Your task to perform on an android device: turn off data saver in the chrome app Image 0: 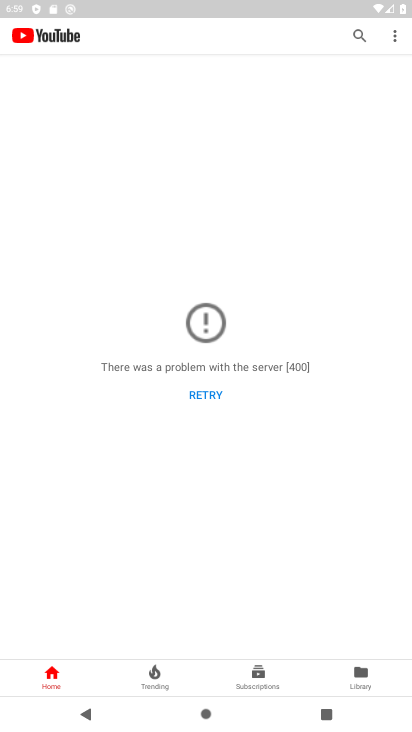
Step 0: click (203, 394)
Your task to perform on an android device: turn off data saver in the chrome app Image 1: 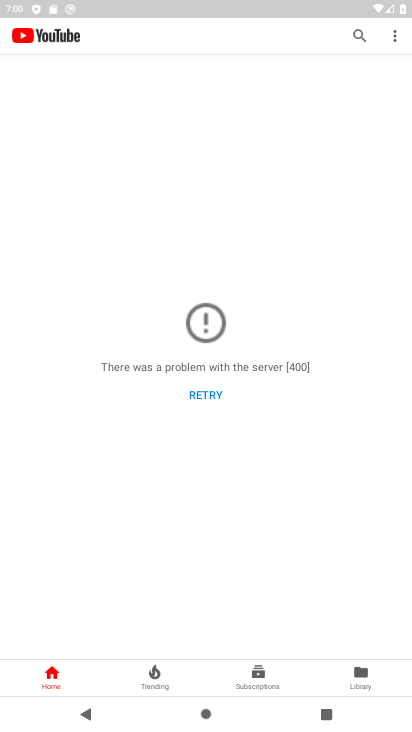
Step 1: press home button
Your task to perform on an android device: turn off data saver in the chrome app Image 2: 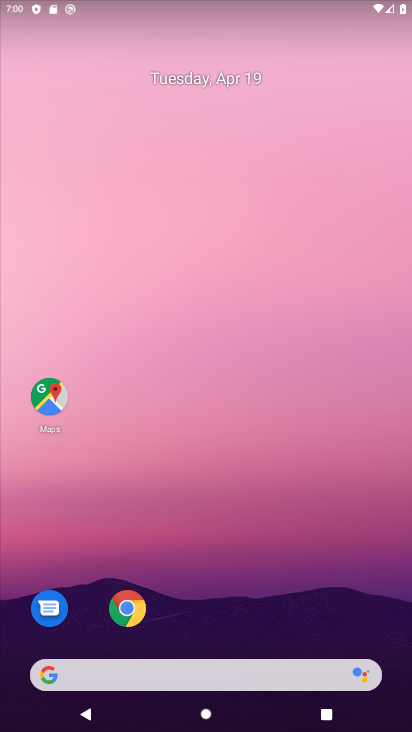
Step 2: click (325, 1)
Your task to perform on an android device: turn off data saver in the chrome app Image 3: 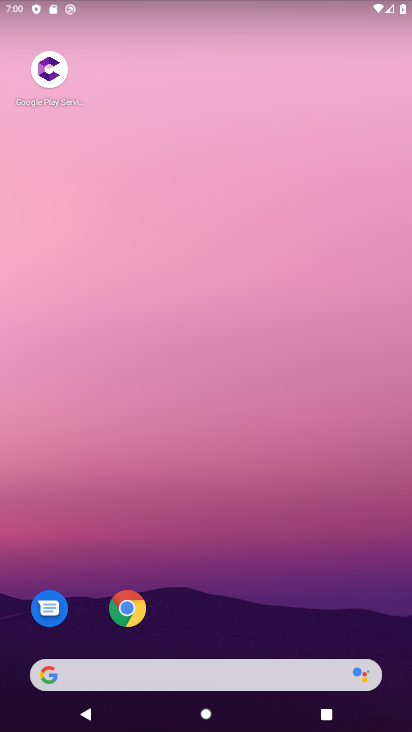
Step 3: click (139, 601)
Your task to perform on an android device: turn off data saver in the chrome app Image 4: 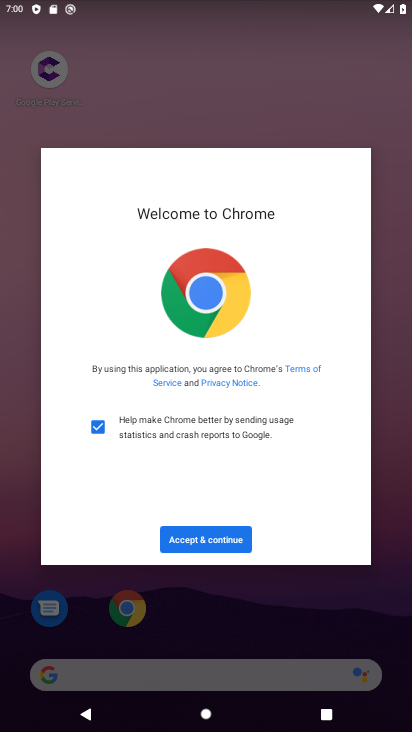
Step 4: click (188, 543)
Your task to perform on an android device: turn off data saver in the chrome app Image 5: 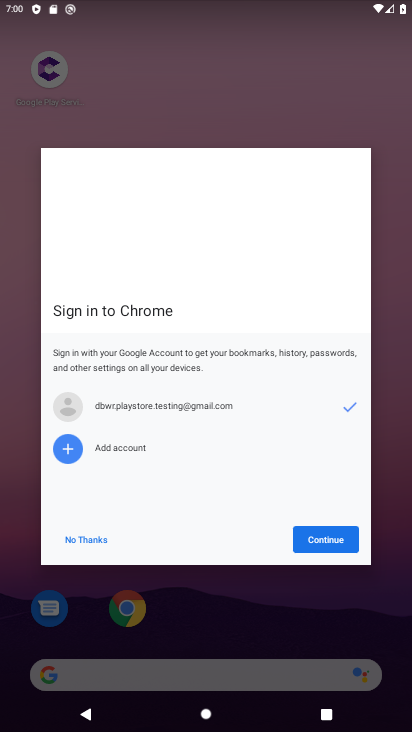
Step 5: click (316, 534)
Your task to perform on an android device: turn off data saver in the chrome app Image 6: 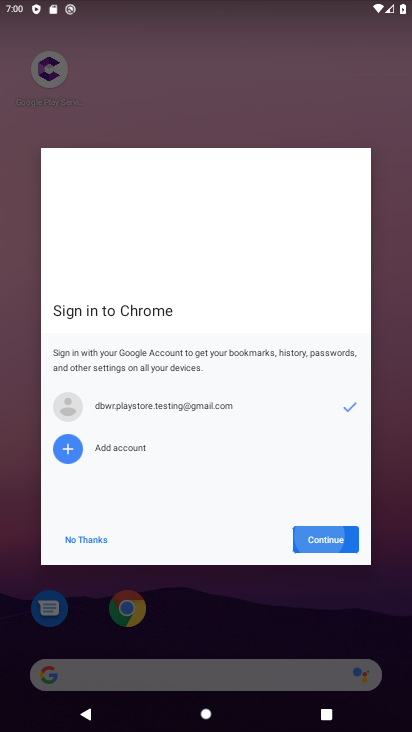
Step 6: click (316, 534)
Your task to perform on an android device: turn off data saver in the chrome app Image 7: 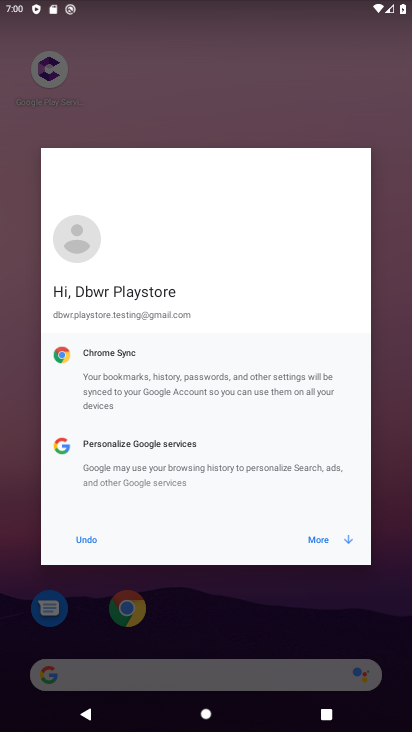
Step 7: click (316, 534)
Your task to perform on an android device: turn off data saver in the chrome app Image 8: 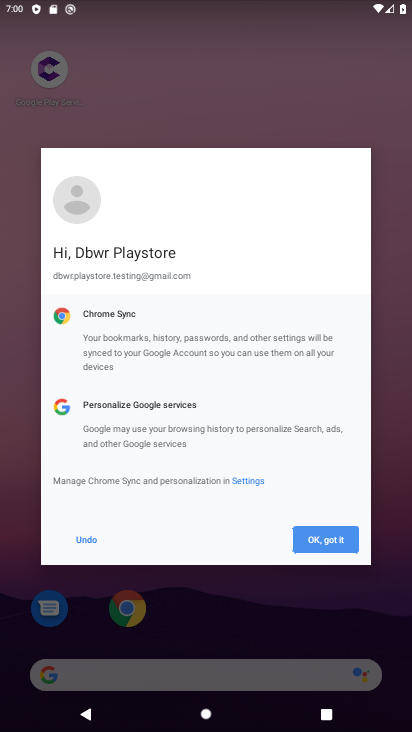
Step 8: click (316, 534)
Your task to perform on an android device: turn off data saver in the chrome app Image 9: 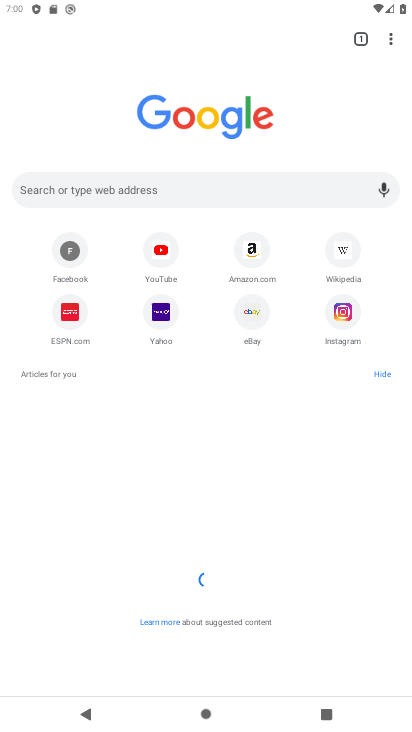
Step 9: click (386, 39)
Your task to perform on an android device: turn off data saver in the chrome app Image 10: 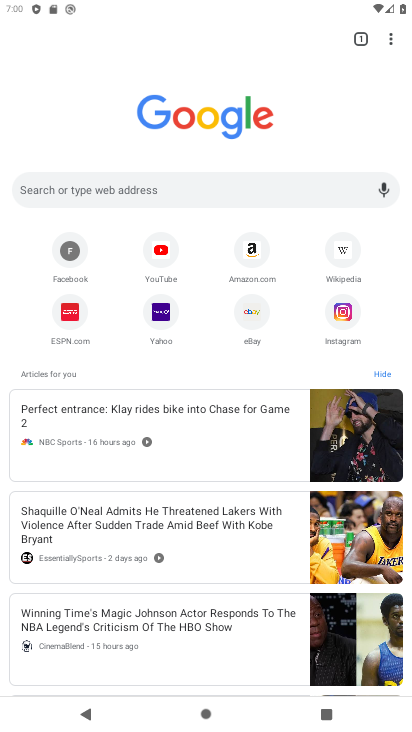
Step 10: click (392, 31)
Your task to perform on an android device: turn off data saver in the chrome app Image 11: 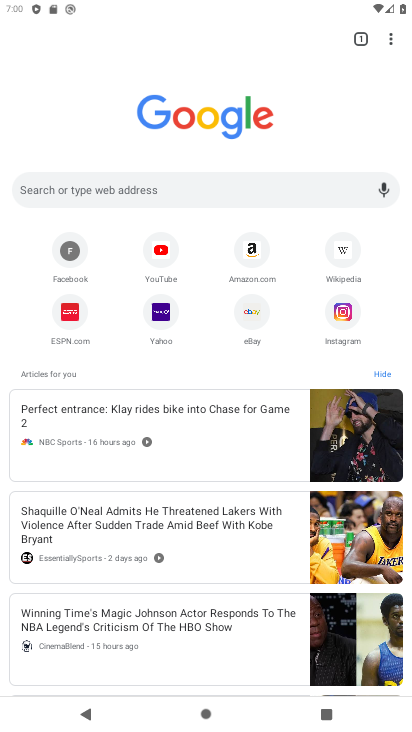
Step 11: click (385, 37)
Your task to perform on an android device: turn off data saver in the chrome app Image 12: 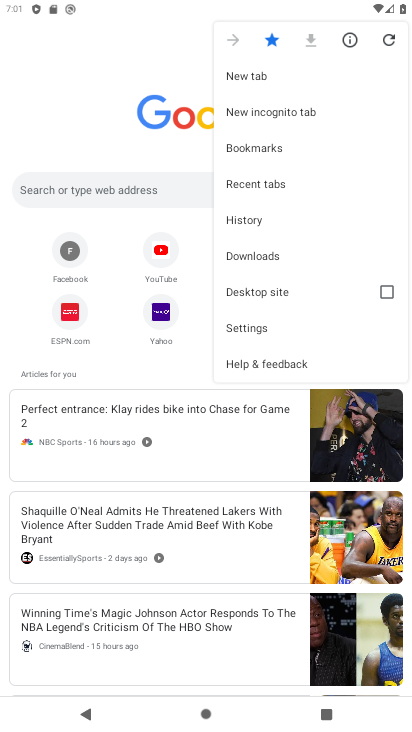
Step 12: click (258, 330)
Your task to perform on an android device: turn off data saver in the chrome app Image 13: 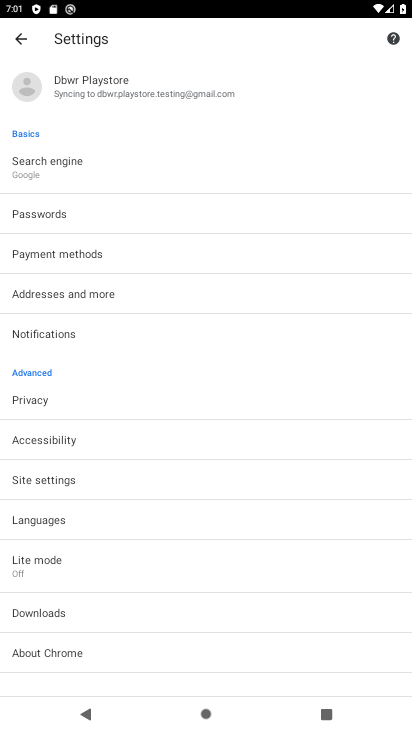
Step 13: click (142, 553)
Your task to perform on an android device: turn off data saver in the chrome app Image 14: 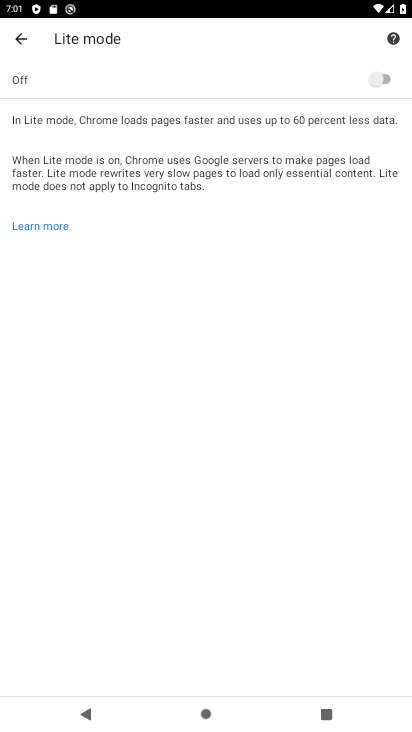
Step 14: task complete